Your task to perform on an android device: change notifications settings Image 0: 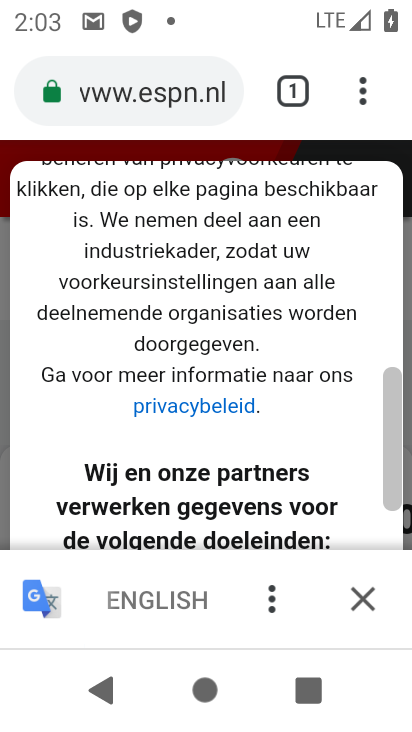
Step 0: press home button
Your task to perform on an android device: change notifications settings Image 1: 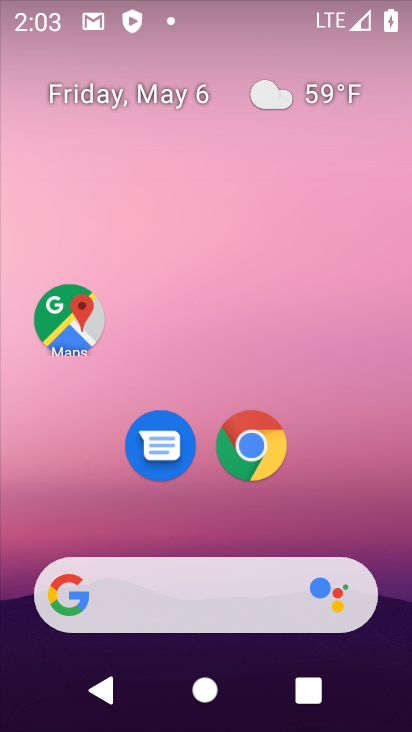
Step 1: drag from (317, 534) to (371, 69)
Your task to perform on an android device: change notifications settings Image 2: 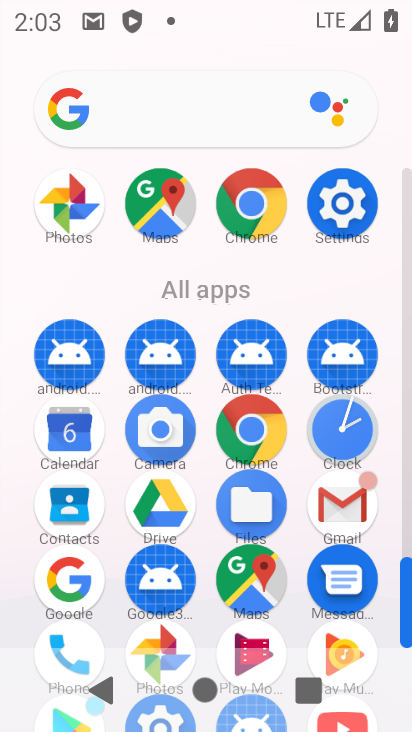
Step 2: click (337, 207)
Your task to perform on an android device: change notifications settings Image 3: 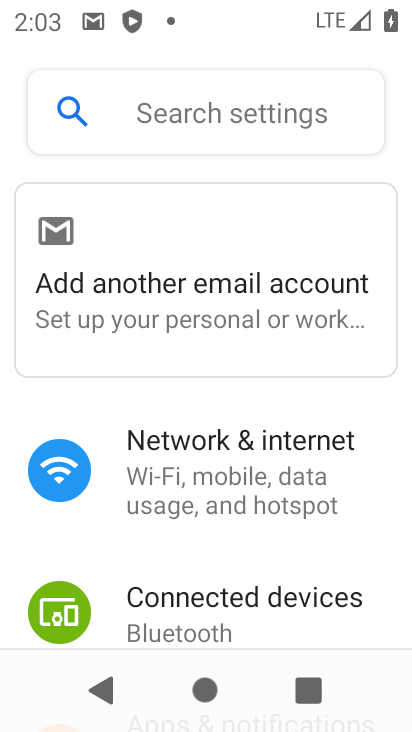
Step 3: drag from (262, 575) to (257, 405)
Your task to perform on an android device: change notifications settings Image 4: 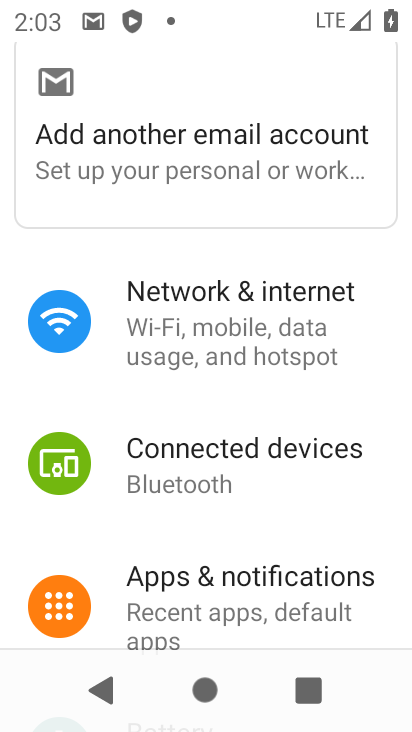
Step 4: click (232, 569)
Your task to perform on an android device: change notifications settings Image 5: 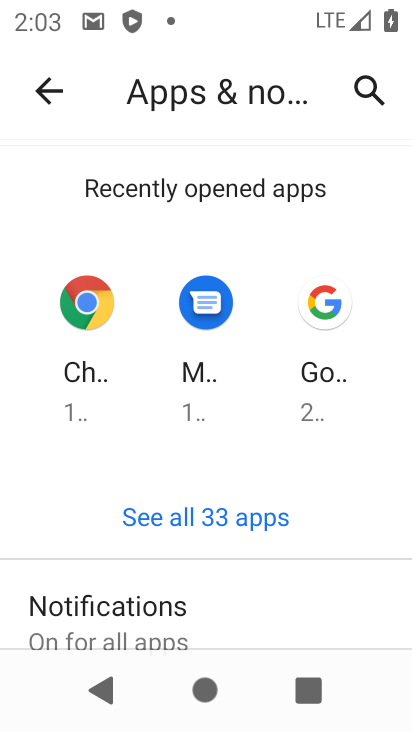
Step 5: drag from (243, 588) to (267, 340)
Your task to perform on an android device: change notifications settings Image 6: 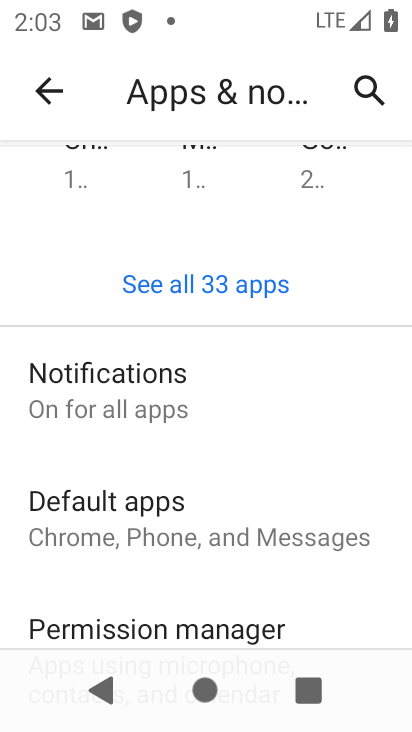
Step 6: click (193, 380)
Your task to perform on an android device: change notifications settings Image 7: 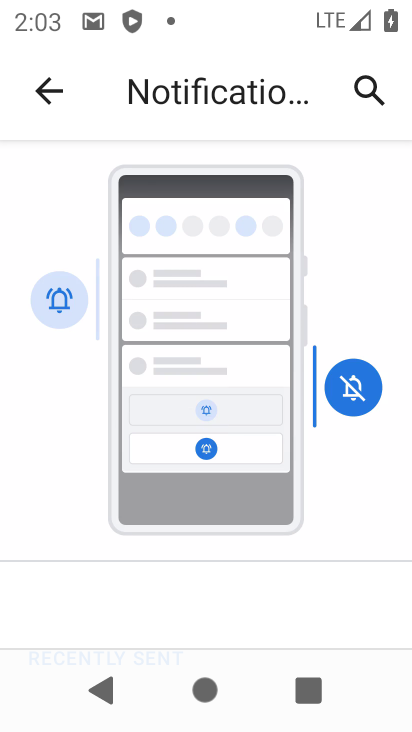
Step 7: drag from (301, 610) to (279, 90)
Your task to perform on an android device: change notifications settings Image 8: 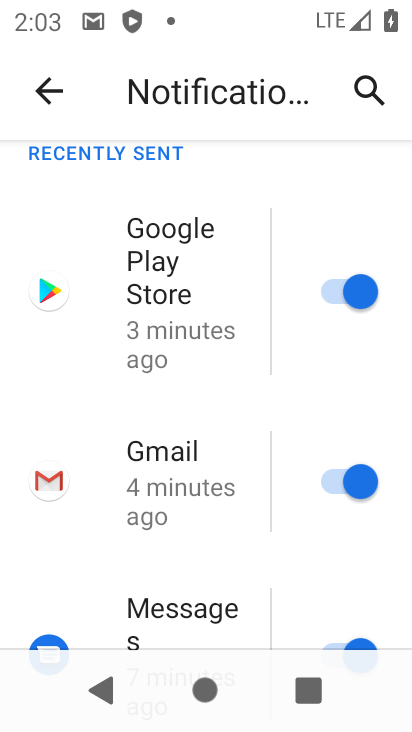
Step 8: click (322, 275)
Your task to perform on an android device: change notifications settings Image 9: 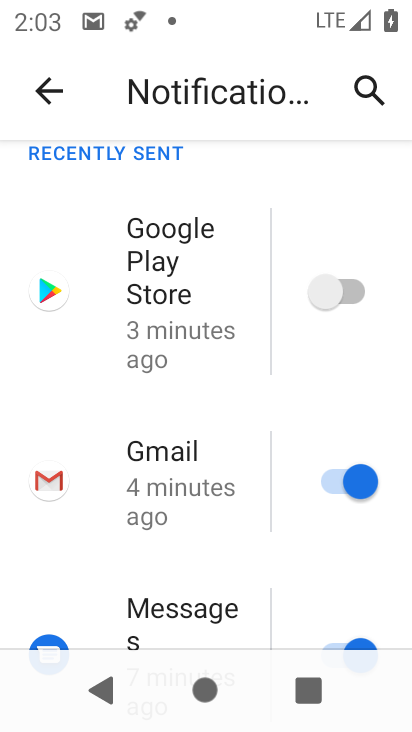
Step 9: click (347, 462)
Your task to perform on an android device: change notifications settings Image 10: 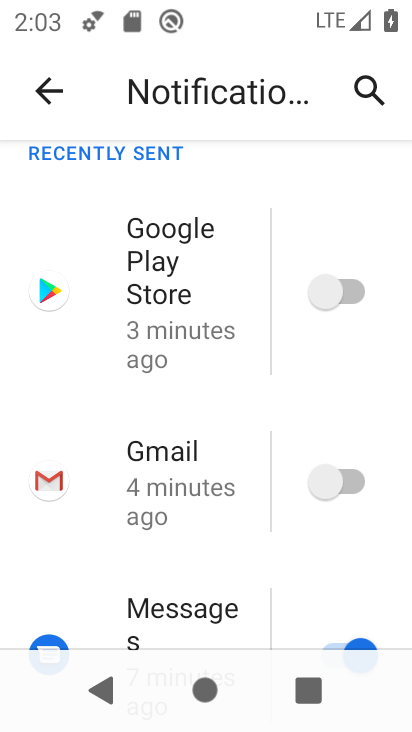
Step 10: drag from (241, 598) to (218, 103)
Your task to perform on an android device: change notifications settings Image 11: 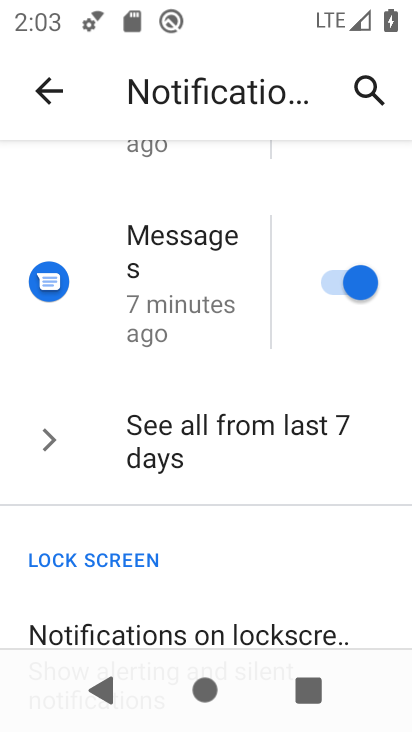
Step 11: click (333, 297)
Your task to perform on an android device: change notifications settings Image 12: 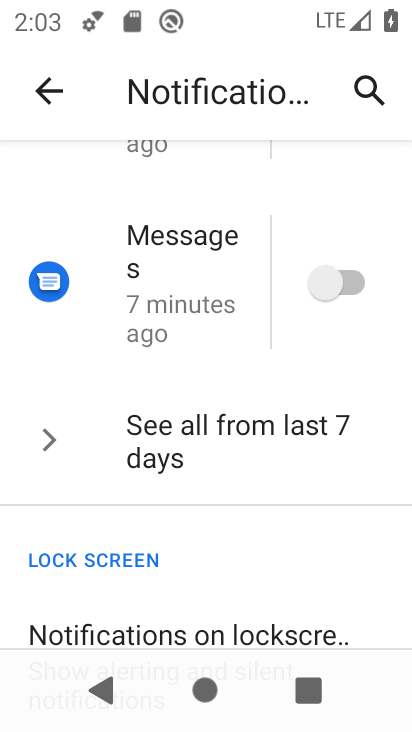
Step 12: click (195, 441)
Your task to perform on an android device: change notifications settings Image 13: 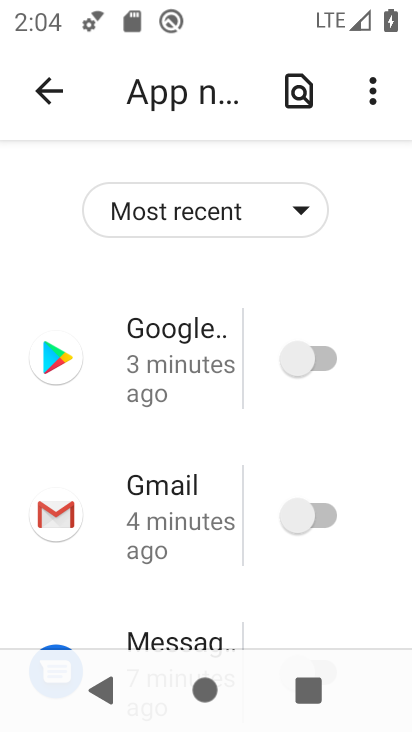
Step 13: drag from (223, 560) to (232, 215)
Your task to perform on an android device: change notifications settings Image 14: 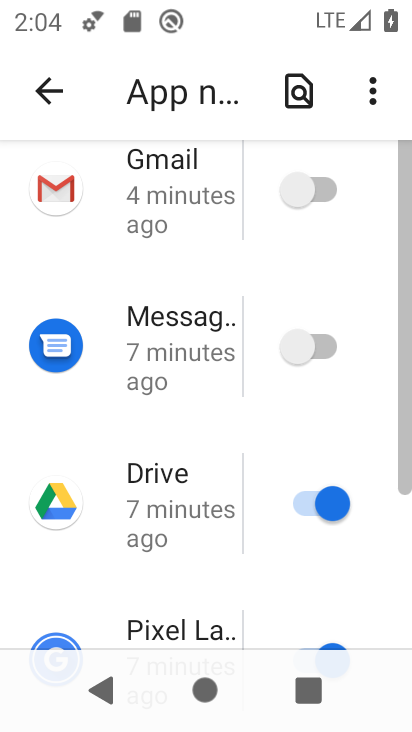
Step 14: drag from (200, 577) to (219, 284)
Your task to perform on an android device: change notifications settings Image 15: 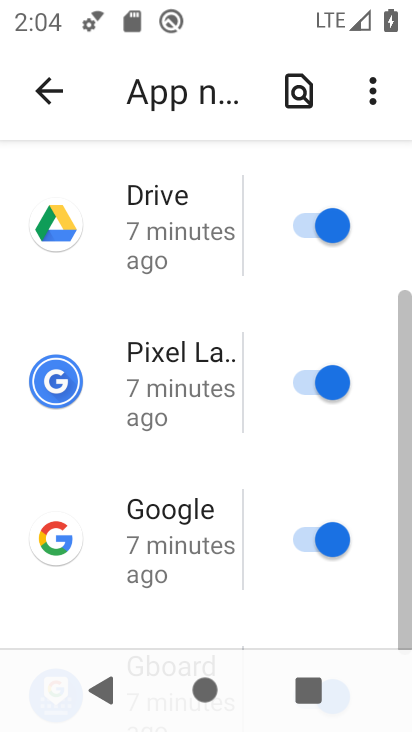
Step 15: click (291, 236)
Your task to perform on an android device: change notifications settings Image 16: 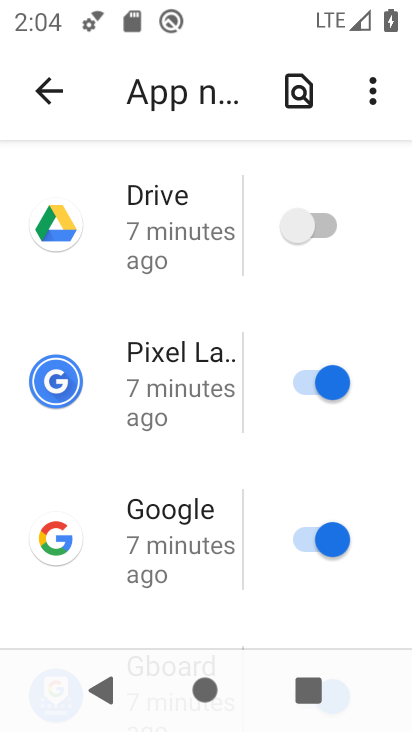
Step 16: click (322, 377)
Your task to perform on an android device: change notifications settings Image 17: 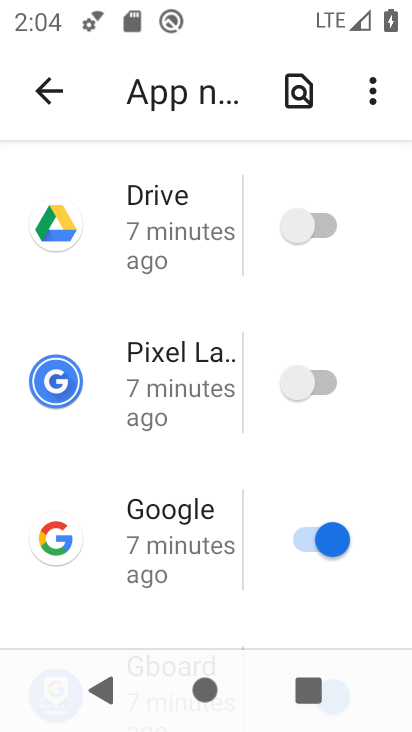
Step 17: click (302, 546)
Your task to perform on an android device: change notifications settings Image 18: 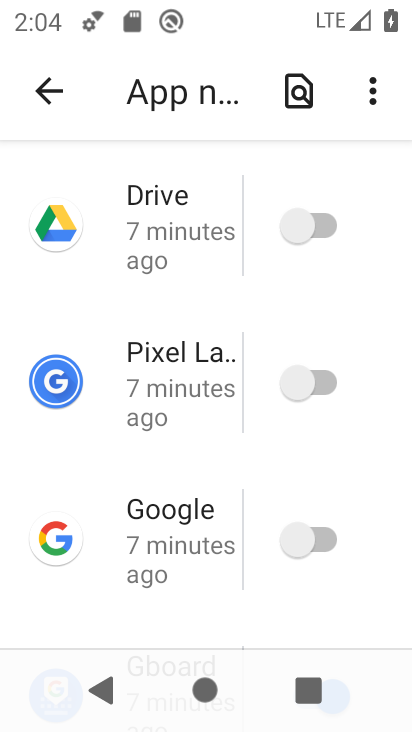
Step 18: drag from (134, 604) to (199, 122)
Your task to perform on an android device: change notifications settings Image 19: 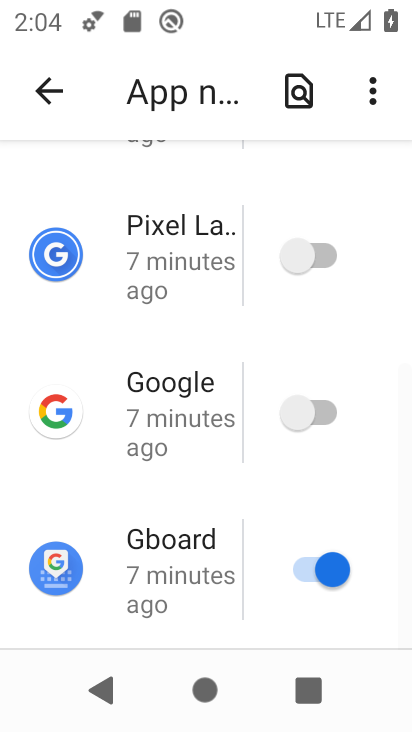
Step 19: click (326, 578)
Your task to perform on an android device: change notifications settings Image 20: 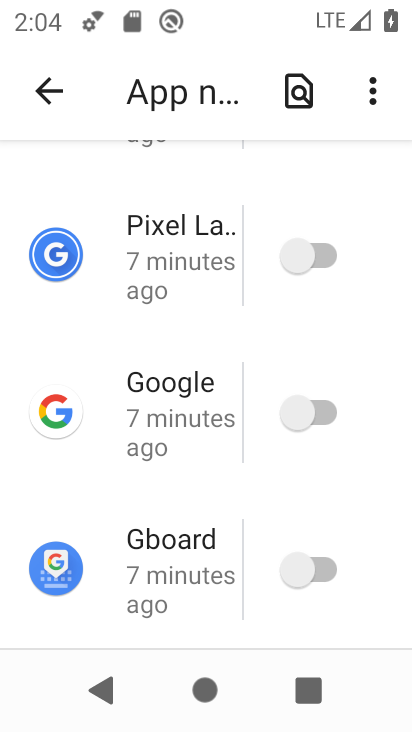
Step 20: press back button
Your task to perform on an android device: change notifications settings Image 21: 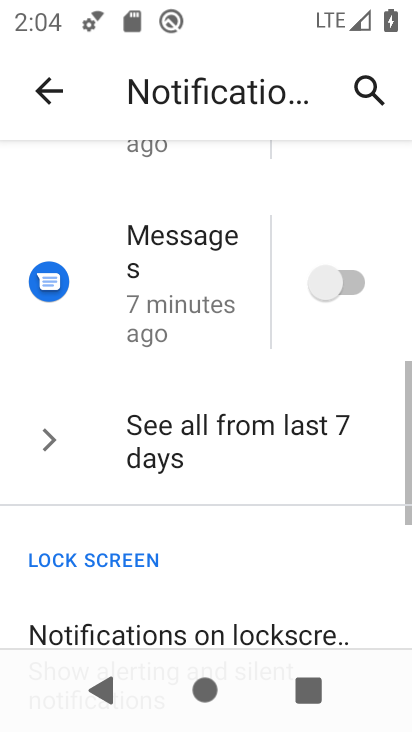
Step 21: drag from (296, 590) to (331, 84)
Your task to perform on an android device: change notifications settings Image 22: 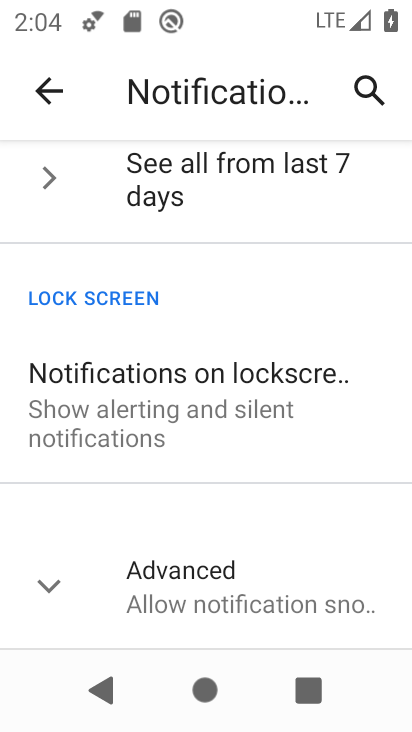
Step 22: click (207, 413)
Your task to perform on an android device: change notifications settings Image 23: 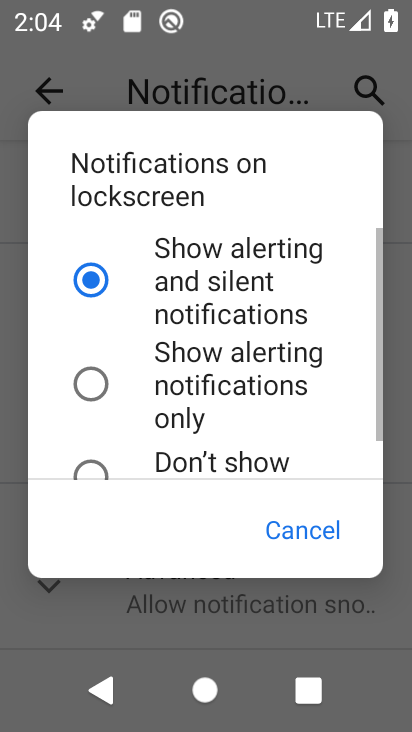
Step 23: click (201, 360)
Your task to perform on an android device: change notifications settings Image 24: 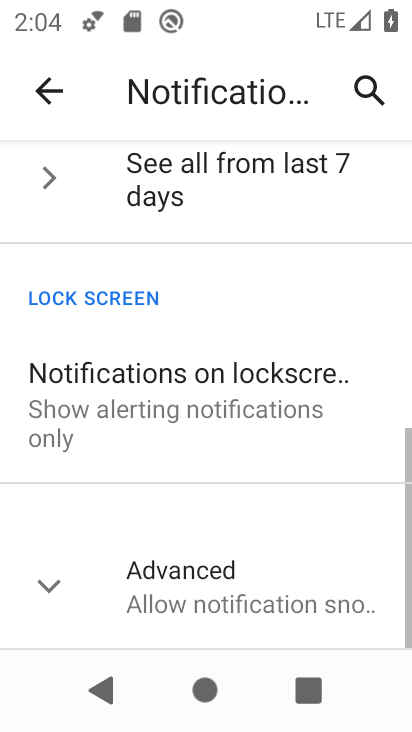
Step 24: click (172, 581)
Your task to perform on an android device: change notifications settings Image 25: 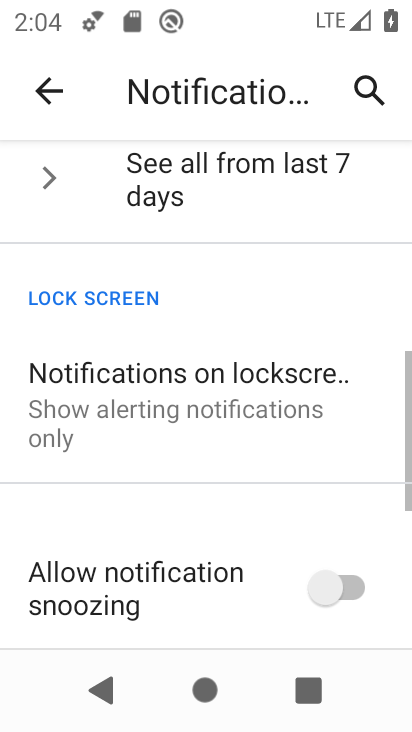
Step 25: drag from (193, 323) to (231, 182)
Your task to perform on an android device: change notifications settings Image 26: 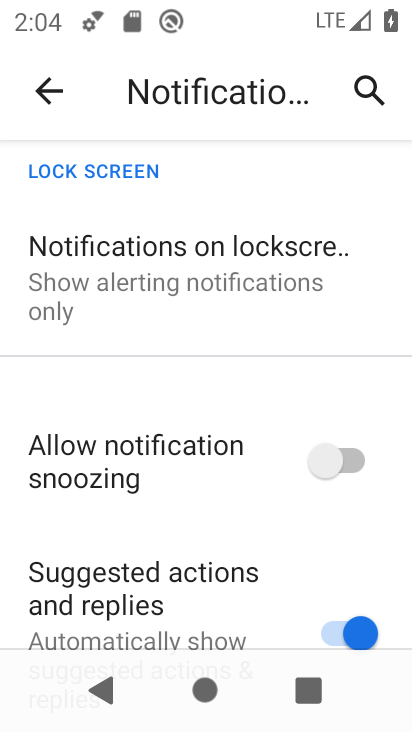
Step 26: click (342, 464)
Your task to perform on an android device: change notifications settings Image 27: 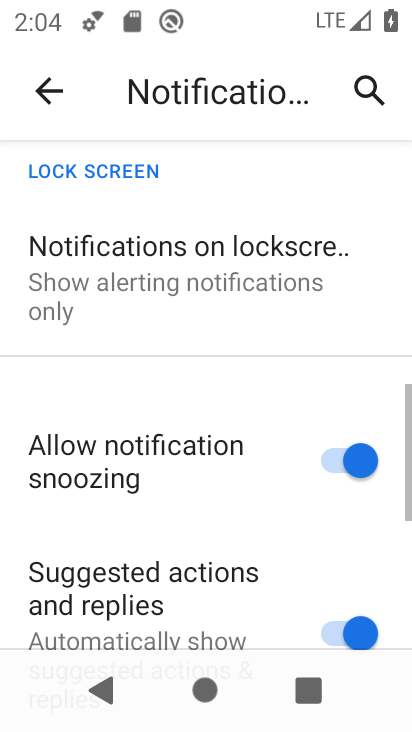
Step 27: drag from (197, 610) to (192, 90)
Your task to perform on an android device: change notifications settings Image 28: 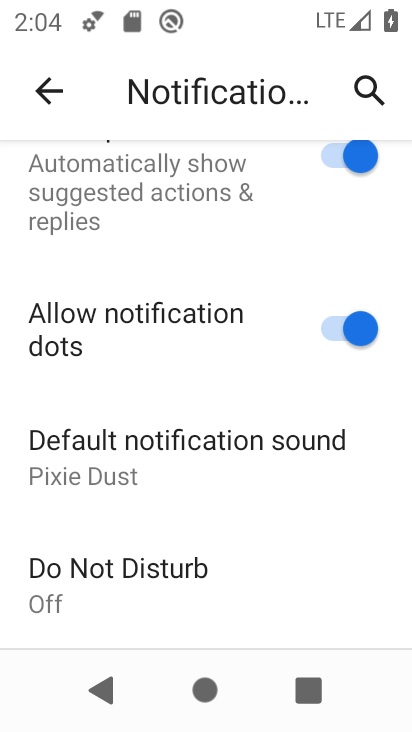
Step 28: click (324, 158)
Your task to perform on an android device: change notifications settings Image 29: 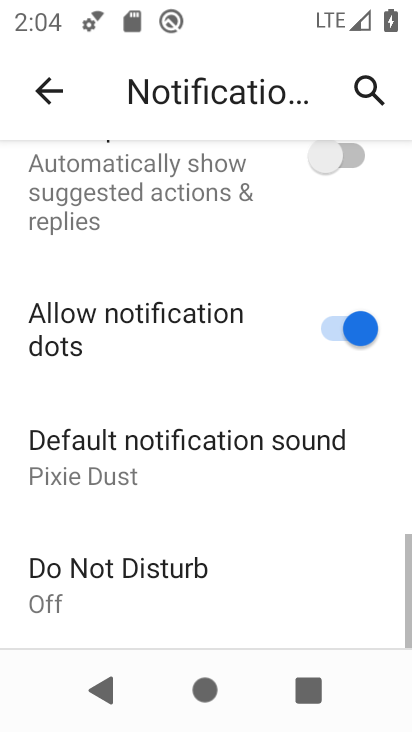
Step 29: click (334, 331)
Your task to perform on an android device: change notifications settings Image 30: 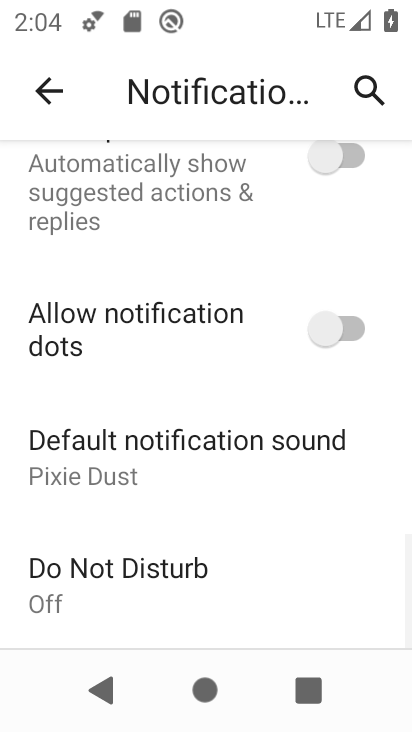
Step 30: click (53, 108)
Your task to perform on an android device: change notifications settings Image 31: 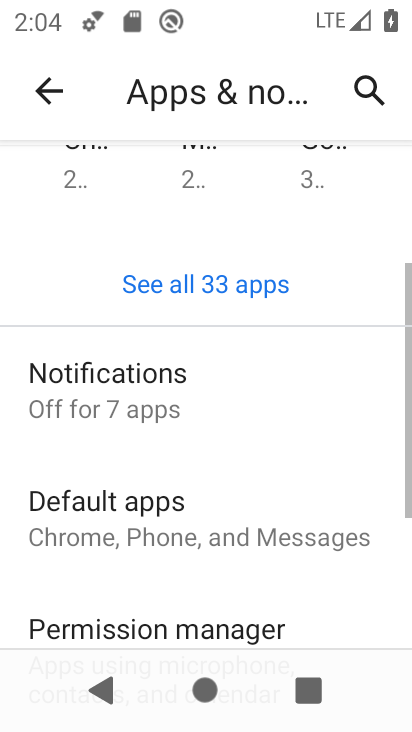
Step 31: task complete